Your task to perform on an android device: check android version Image 0: 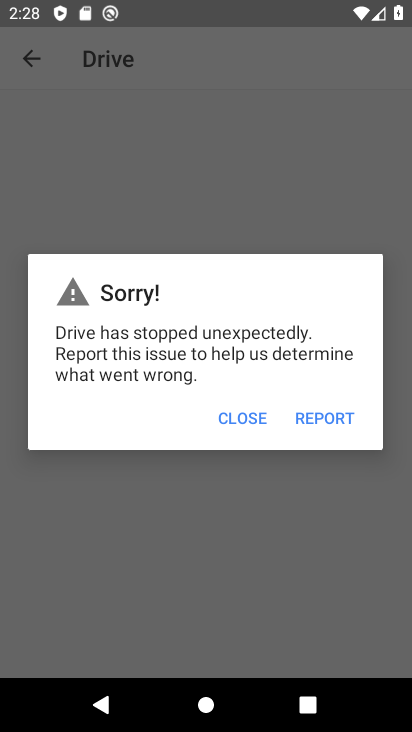
Step 0: press home button
Your task to perform on an android device: check android version Image 1: 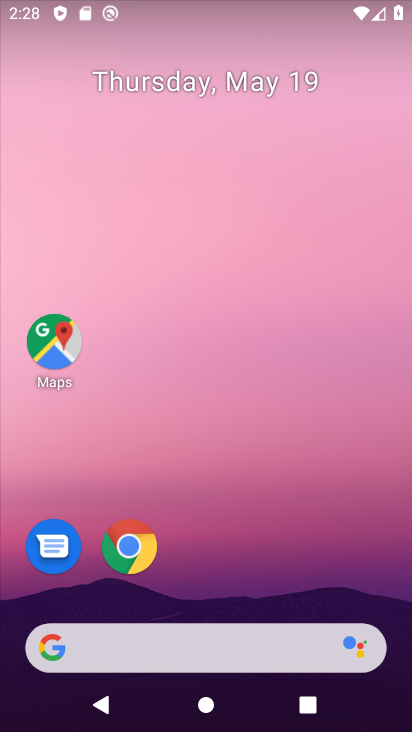
Step 1: drag from (145, 652) to (293, 197)
Your task to perform on an android device: check android version Image 2: 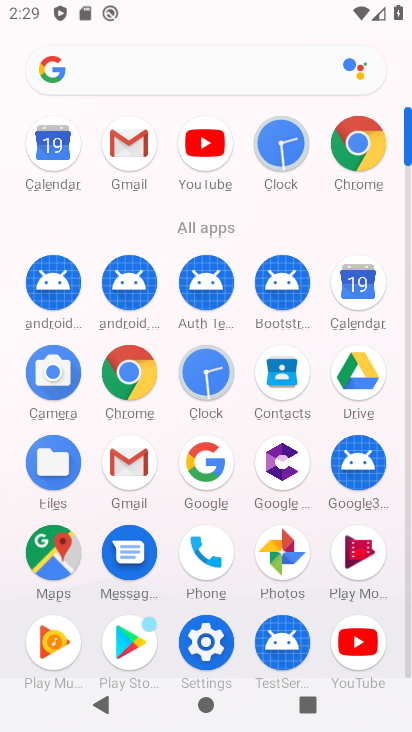
Step 2: click (207, 636)
Your task to perform on an android device: check android version Image 3: 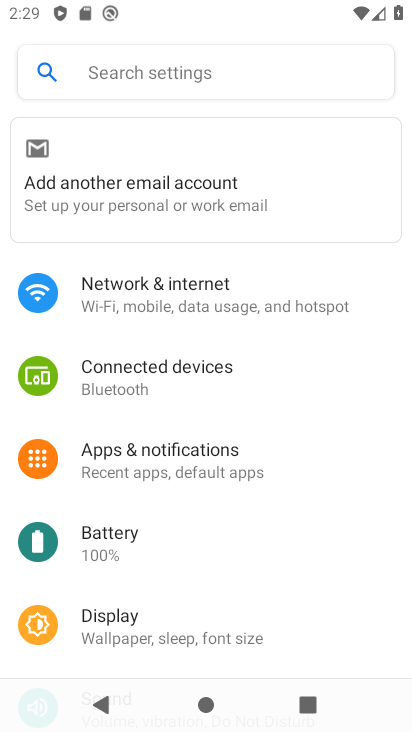
Step 3: drag from (205, 610) to (287, 245)
Your task to perform on an android device: check android version Image 4: 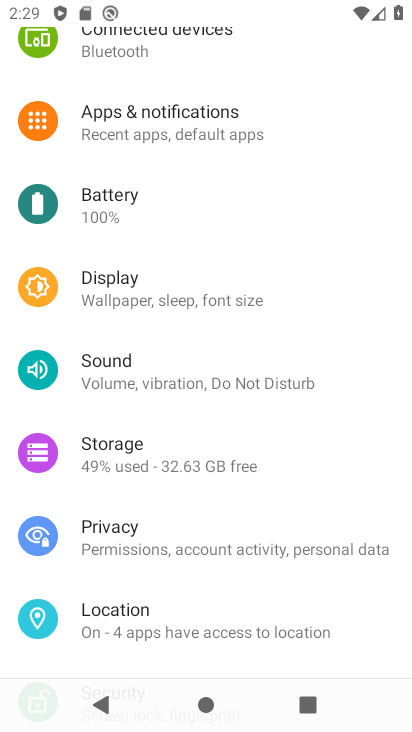
Step 4: drag from (216, 614) to (358, 193)
Your task to perform on an android device: check android version Image 5: 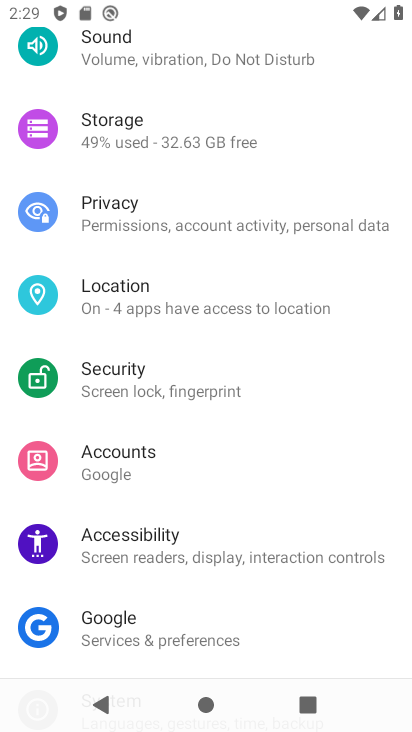
Step 5: drag from (185, 602) to (306, 206)
Your task to perform on an android device: check android version Image 6: 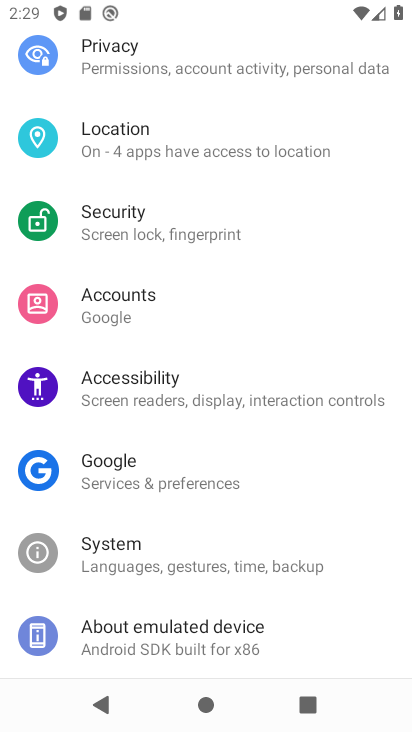
Step 6: click (181, 639)
Your task to perform on an android device: check android version Image 7: 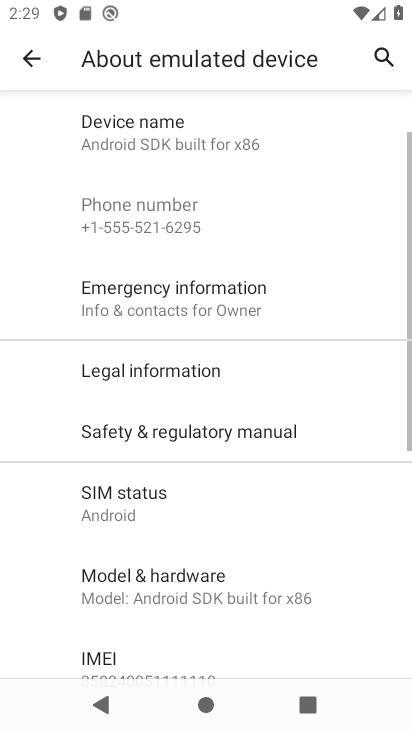
Step 7: drag from (185, 641) to (308, 244)
Your task to perform on an android device: check android version Image 8: 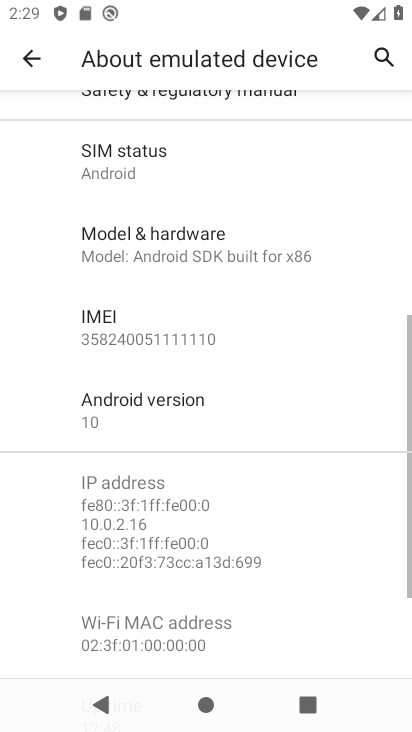
Step 8: click (166, 406)
Your task to perform on an android device: check android version Image 9: 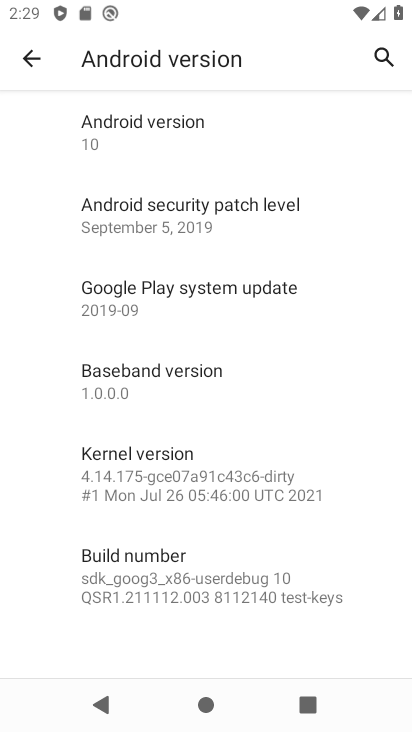
Step 9: task complete